Your task to perform on an android device: Open ESPN.com Image 0: 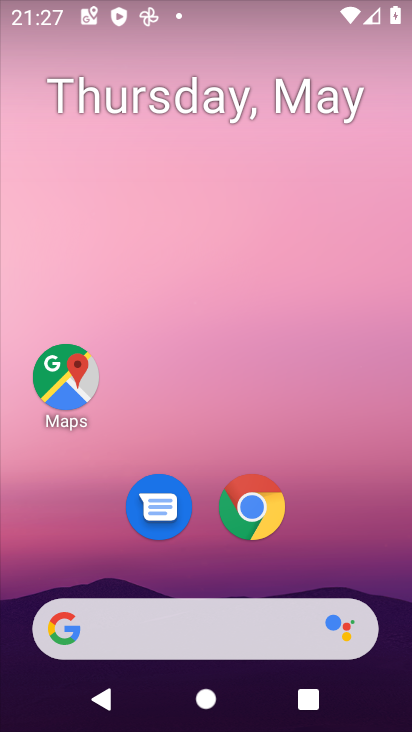
Step 0: drag from (224, 655) to (210, 273)
Your task to perform on an android device: Open ESPN.com Image 1: 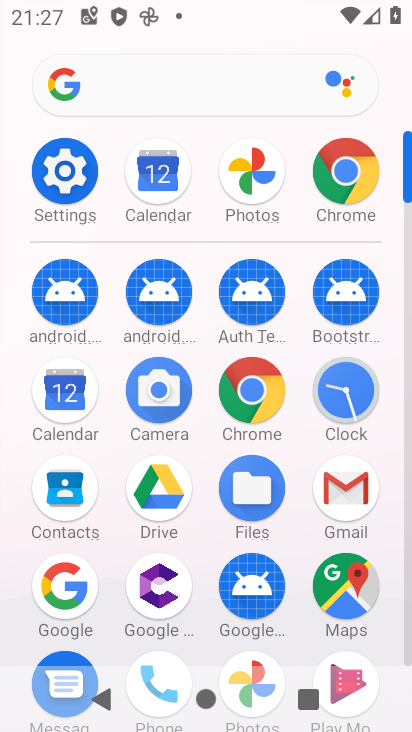
Step 1: click (248, 383)
Your task to perform on an android device: Open ESPN.com Image 2: 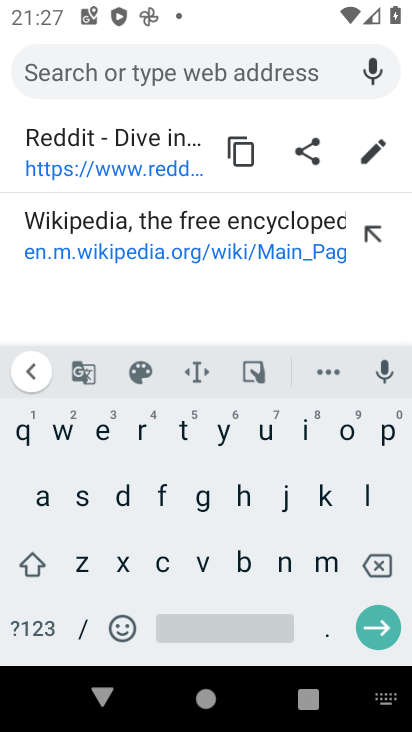
Step 2: press back button
Your task to perform on an android device: Open ESPN.com Image 3: 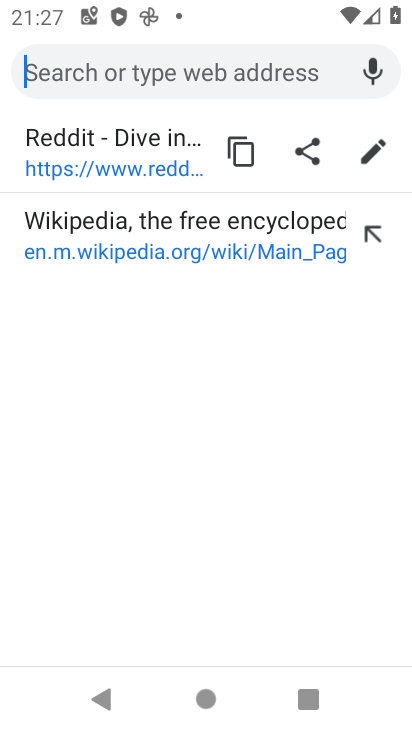
Step 3: press back button
Your task to perform on an android device: Open ESPN.com Image 4: 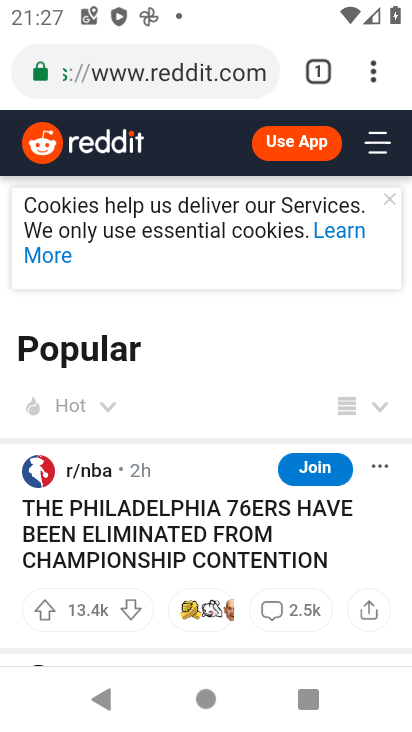
Step 4: click (315, 74)
Your task to perform on an android device: Open ESPN.com Image 5: 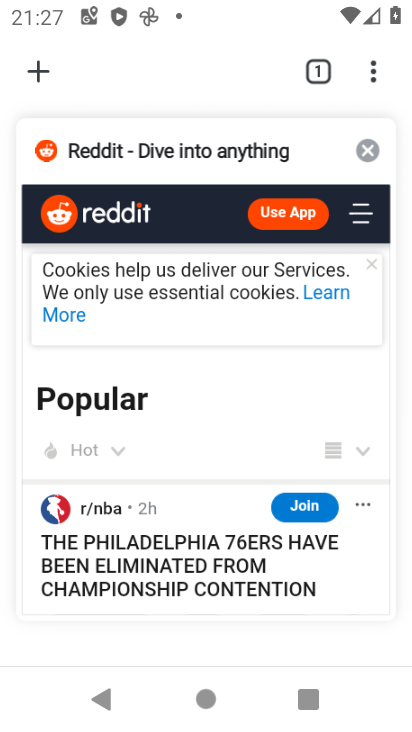
Step 5: click (45, 79)
Your task to perform on an android device: Open ESPN.com Image 6: 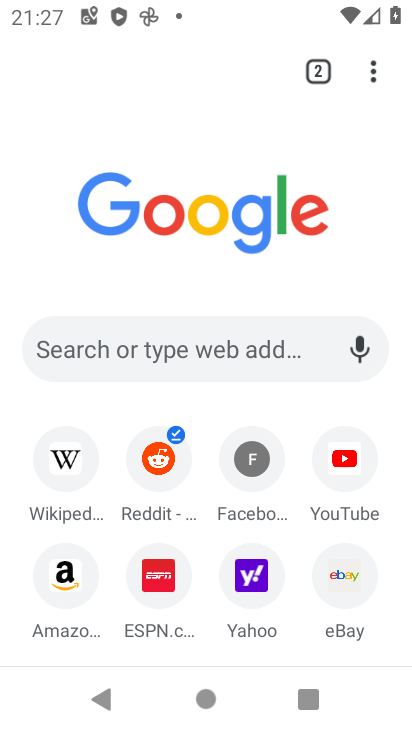
Step 6: click (177, 579)
Your task to perform on an android device: Open ESPN.com Image 7: 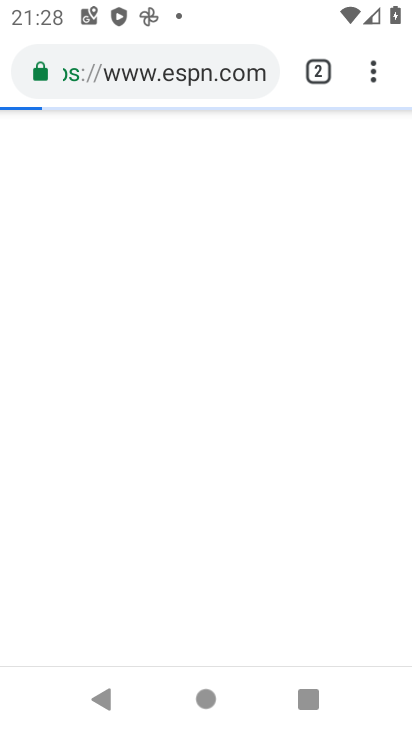
Step 7: task complete